Your task to perform on an android device: toggle notification dots Image 0: 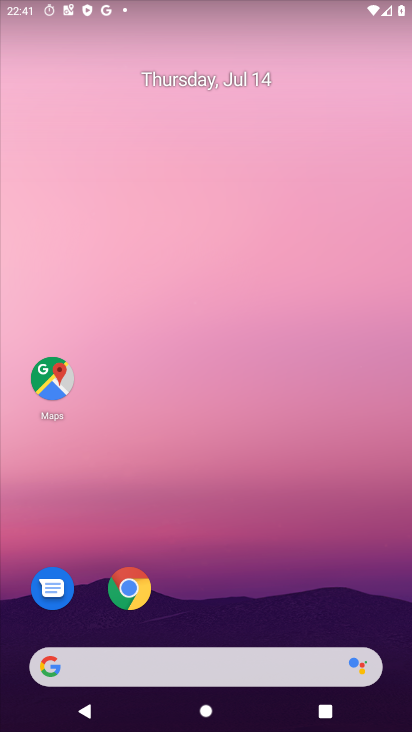
Step 0: drag from (219, 607) to (227, 165)
Your task to perform on an android device: toggle notification dots Image 1: 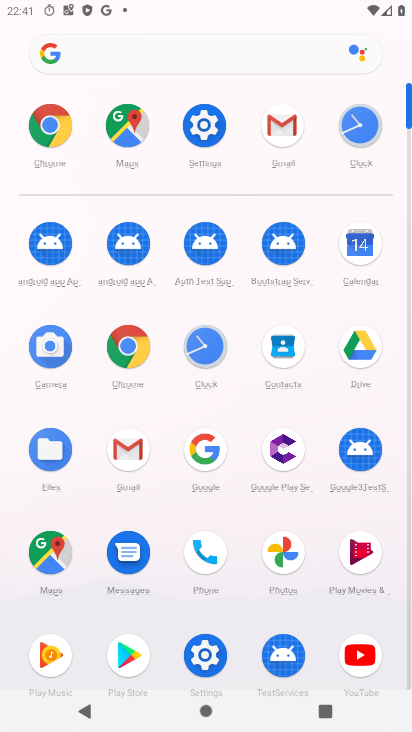
Step 1: click (205, 126)
Your task to perform on an android device: toggle notification dots Image 2: 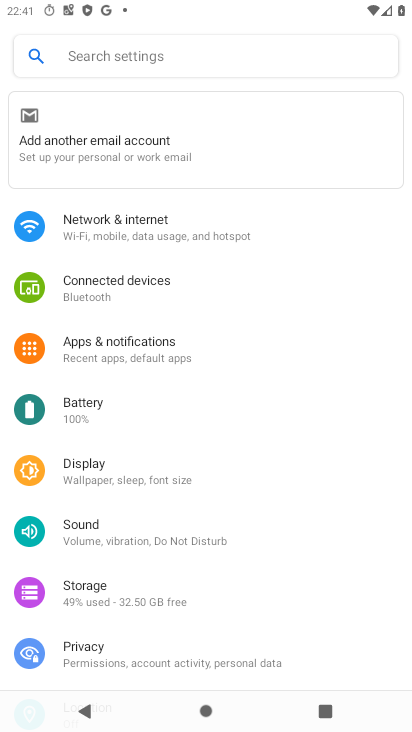
Step 2: click (125, 339)
Your task to perform on an android device: toggle notification dots Image 3: 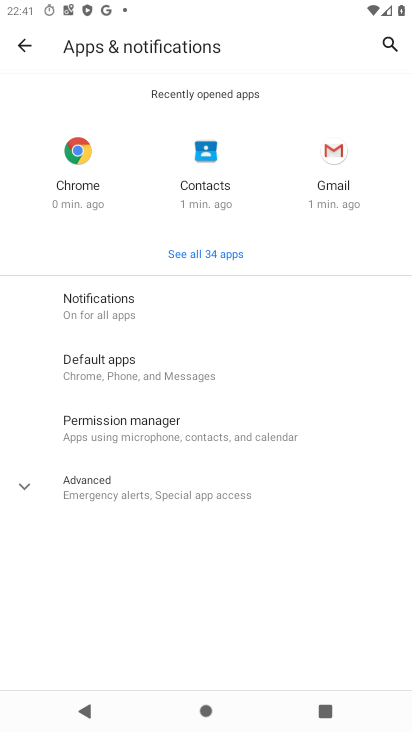
Step 3: click (131, 303)
Your task to perform on an android device: toggle notification dots Image 4: 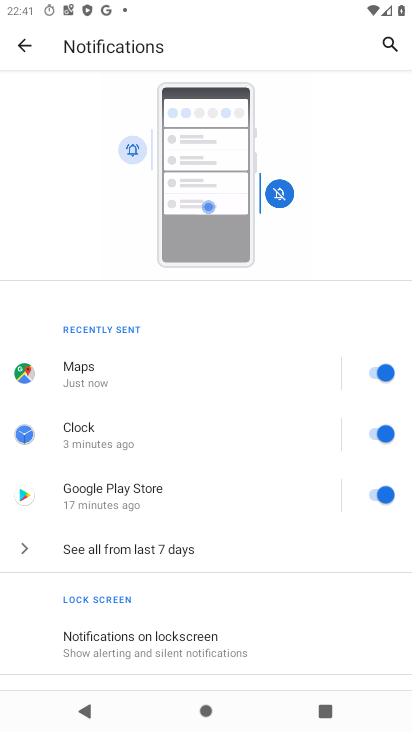
Step 4: drag from (224, 574) to (265, 112)
Your task to perform on an android device: toggle notification dots Image 5: 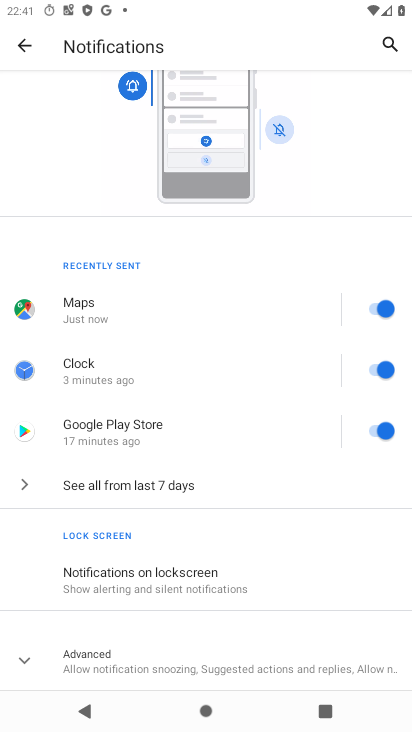
Step 5: click (111, 658)
Your task to perform on an android device: toggle notification dots Image 6: 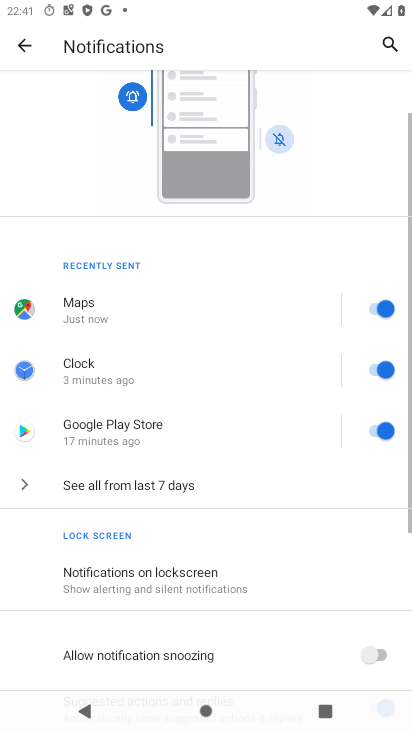
Step 6: drag from (251, 594) to (259, 346)
Your task to perform on an android device: toggle notification dots Image 7: 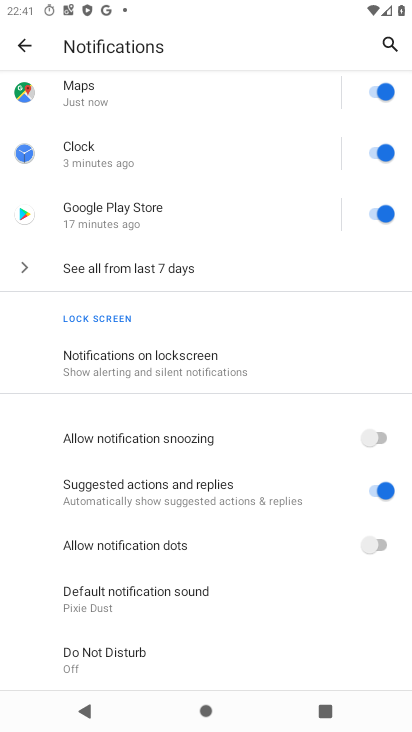
Step 7: click (381, 543)
Your task to perform on an android device: toggle notification dots Image 8: 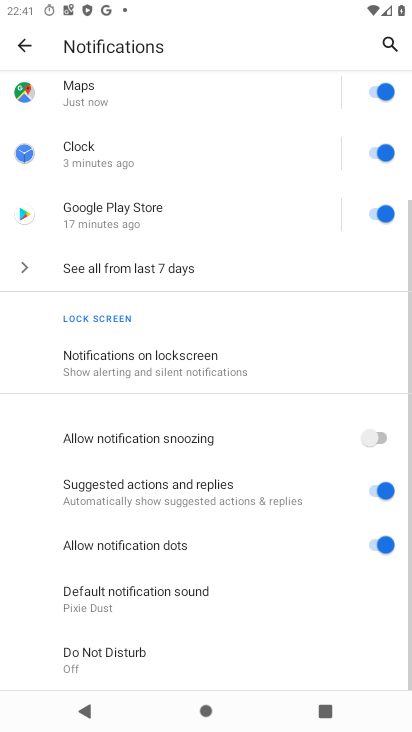
Step 8: task complete